Your task to perform on an android device: Set the phone to "Do not disturb". Image 0: 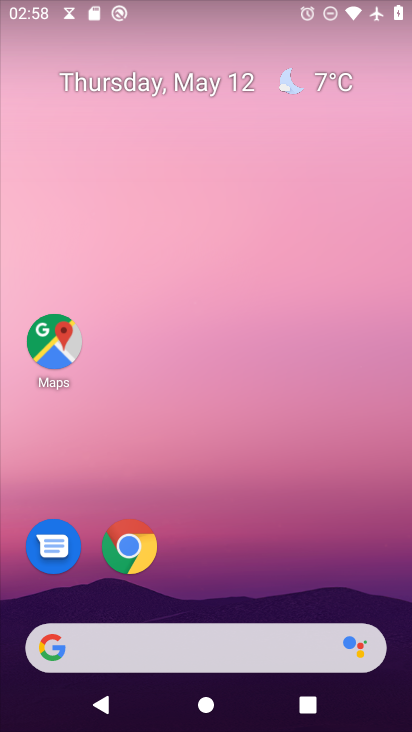
Step 0: drag from (183, 650) to (314, 152)
Your task to perform on an android device: Set the phone to "Do not disturb". Image 1: 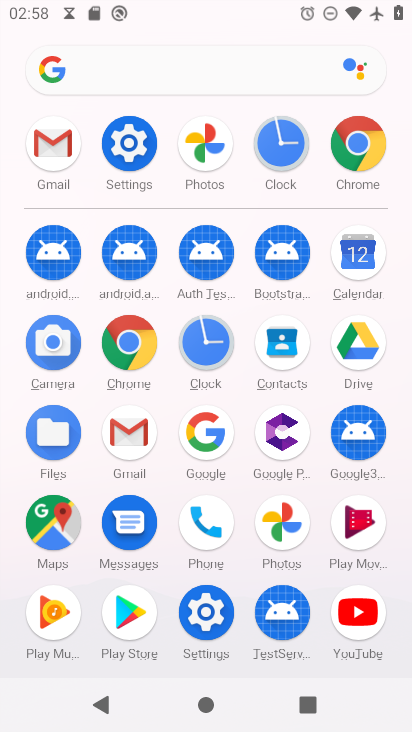
Step 1: click (138, 149)
Your task to perform on an android device: Set the phone to "Do not disturb". Image 2: 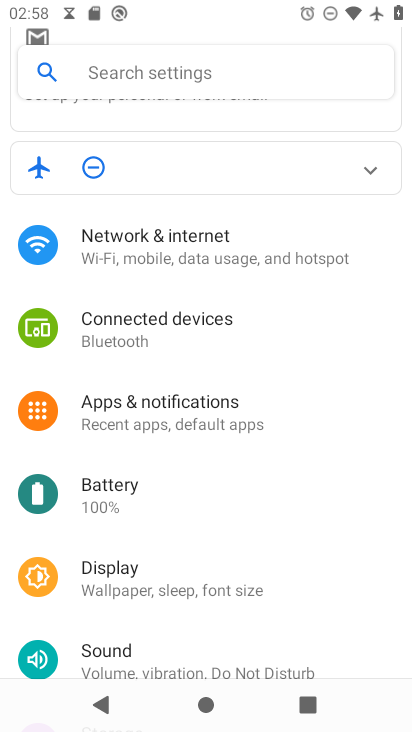
Step 2: drag from (171, 562) to (303, 297)
Your task to perform on an android device: Set the phone to "Do not disturb". Image 3: 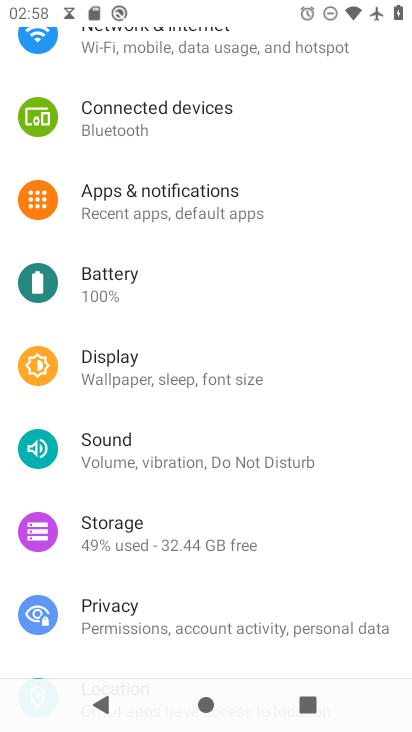
Step 3: click (219, 463)
Your task to perform on an android device: Set the phone to "Do not disturb". Image 4: 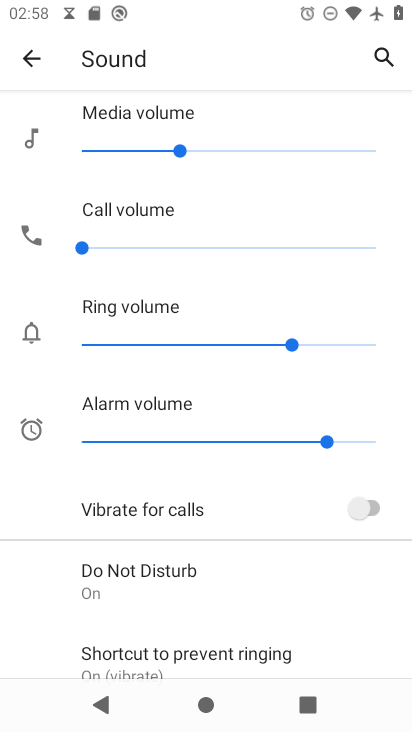
Step 4: click (128, 577)
Your task to perform on an android device: Set the phone to "Do not disturb". Image 5: 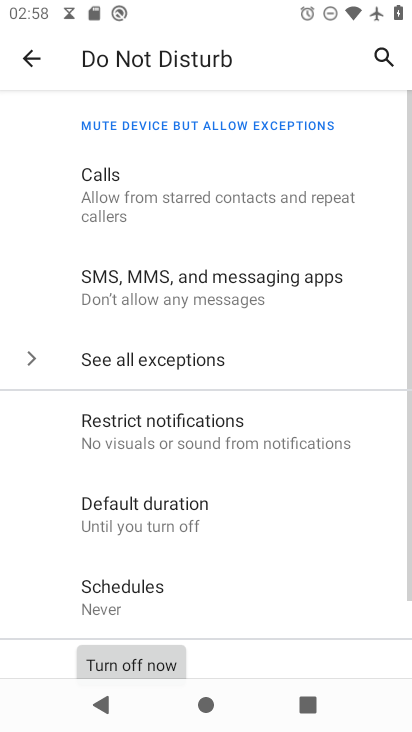
Step 5: task complete